Your task to perform on an android device: turn on sleep mode Image 0: 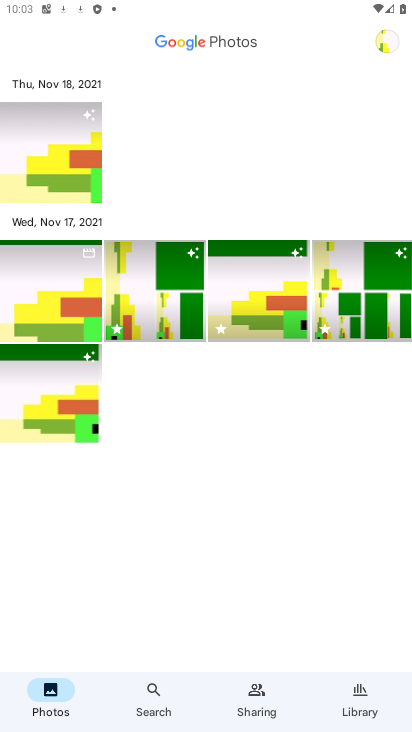
Step 0: press home button
Your task to perform on an android device: turn on sleep mode Image 1: 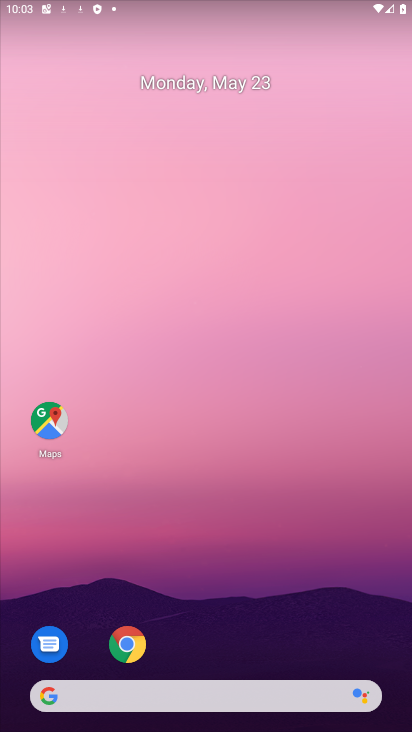
Step 1: drag from (260, 728) to (290, 202)
Your task to perform on an android device: turn on sleep mode Image 2: 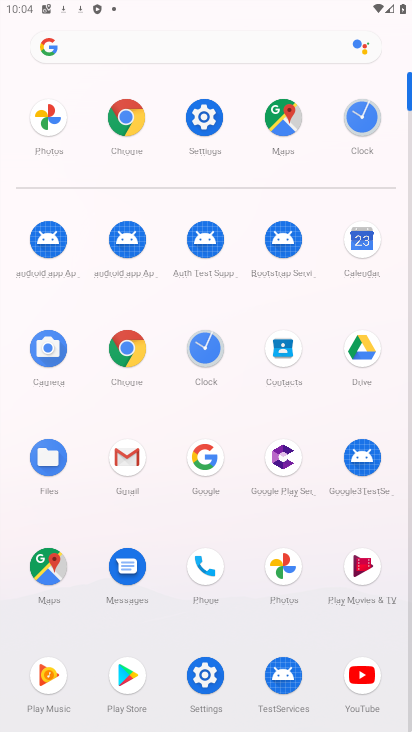
Step 2: click (210, 130)
Your task to perform on an android device: turn on sleep mode Image 3: 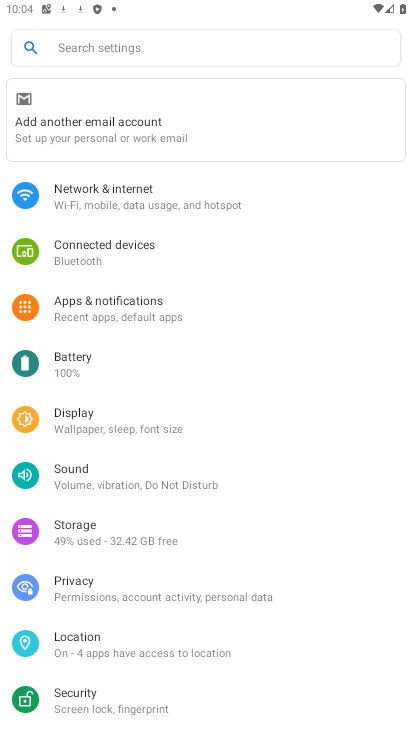
Step 3: click (122, 47)
Your task to perform on an android device: turn on sleep mode Image 4: 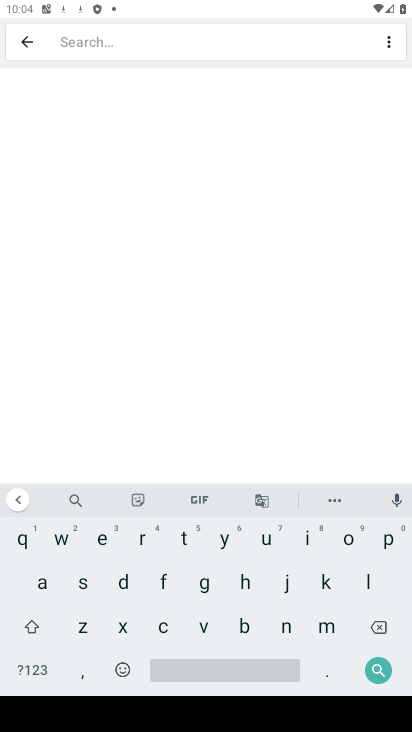
Step 4: click (79, 609)
Your task to perform on an android device: turn on sleep mode Image 5: 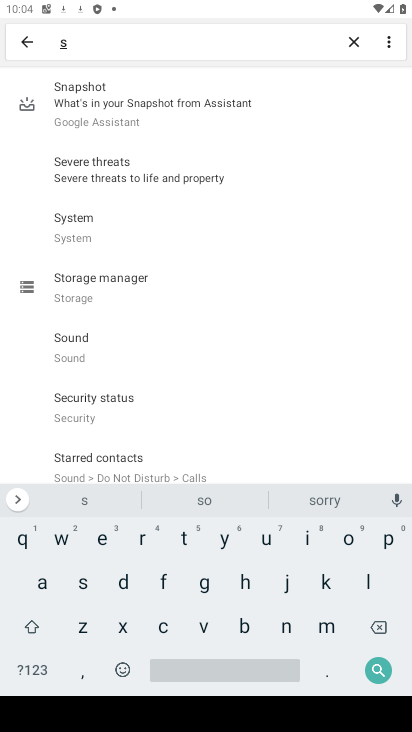
Step 5: click (364, 577)
Your task to perform on an android device: turn on sleep mode Image 6: 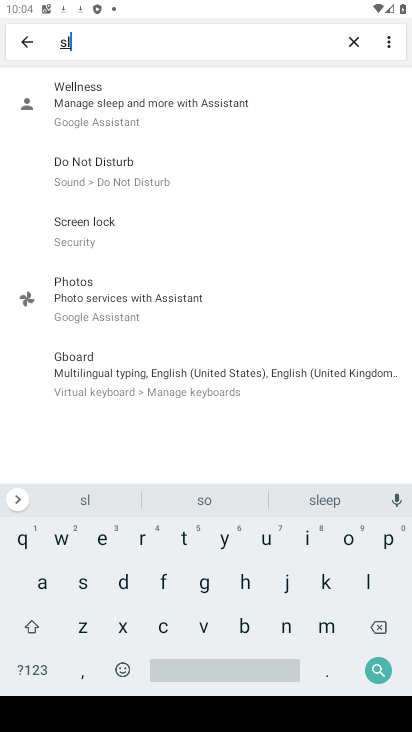
Step 6: click (167, 111)
Your task to perform on an android device: turn on sleep mode Image 7: 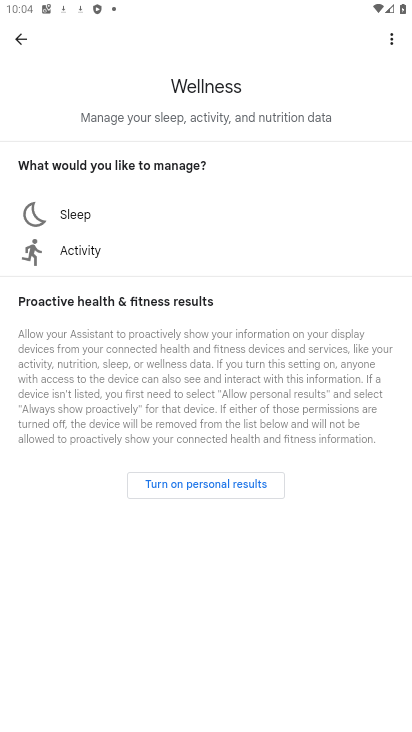
Step 7: click (76, 211)
Your task to perform on an android device: turn on sleep mode Image 8: 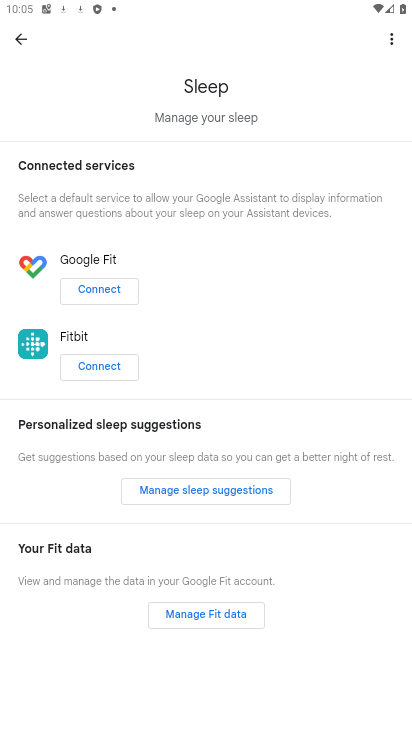
Step 8: task complete